Your task to perform on an android device: visit the assistant section in the google photos Image 0: 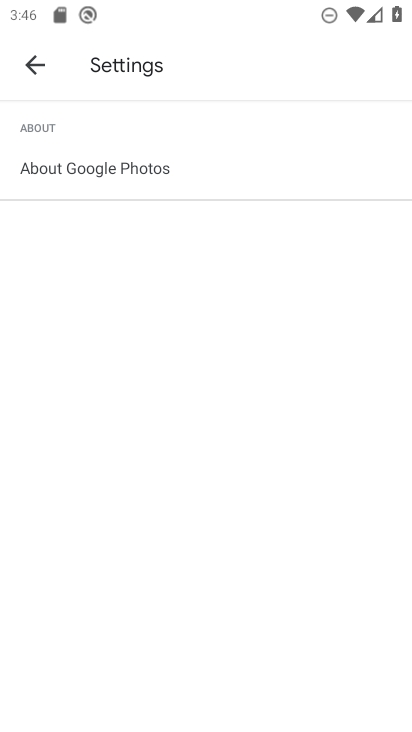
Step 0: press home button
Your task to perform on an android device: visit the assistant section in the google photos Image 1: 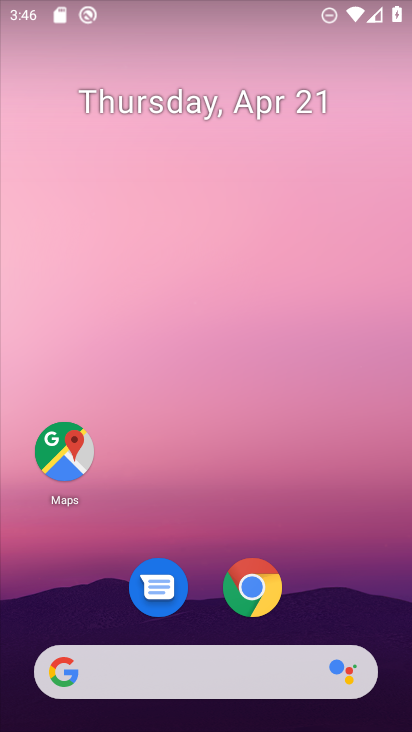
Step 1: drag from (391, 597) to (411, 98)
Your task to perform on an android device: visit the assistant section in the google photos Image 2: 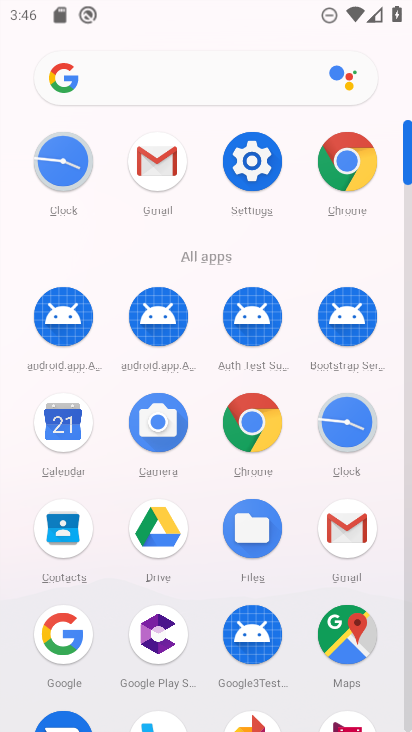
Step 2: click (406, 585)
Your task to perform on an android device: visit the assistant section in the google photos Image 3: 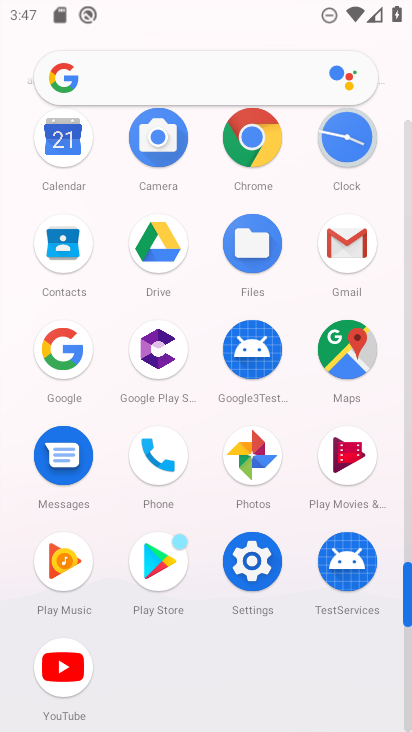
Step 3: click (255, 464)
Your task to perform on an android device: visit the assistant section in the google photos Image 4: 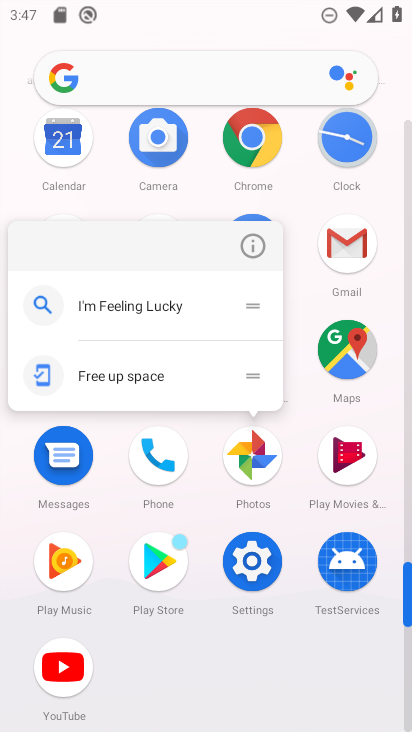
Step 4: click (256, 459)
Your task to perform on an android device: visit the assistant section in the google photos Image 5: 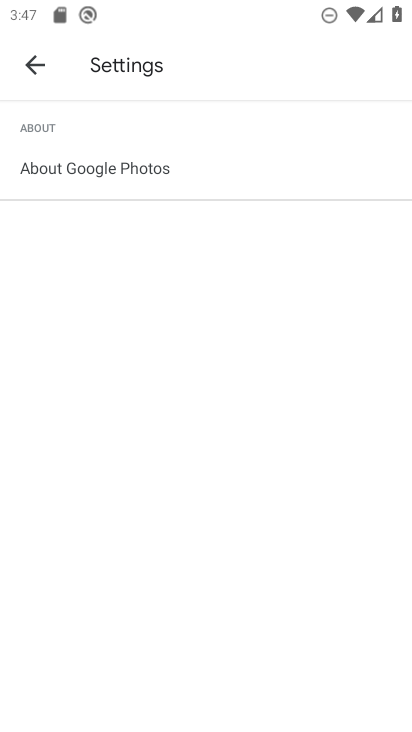
Step 5: click (43, 71)
Your task to perform on an android device: visit the assistant section in the google photos Image 6: 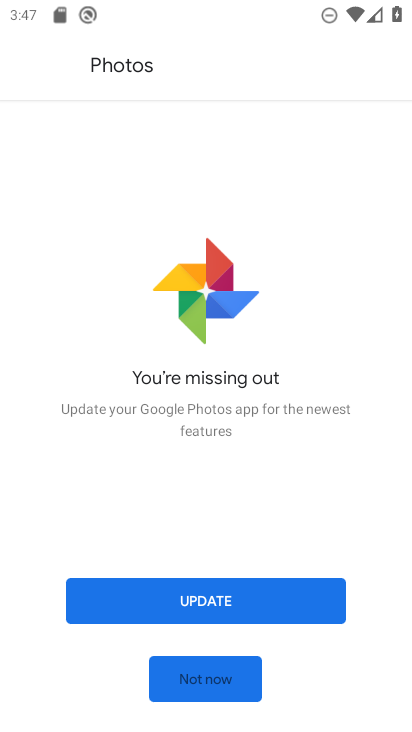
Step 6: click (171, 684)
Your task to perform on an android device: visit the assistant section in the google photos Image 7: 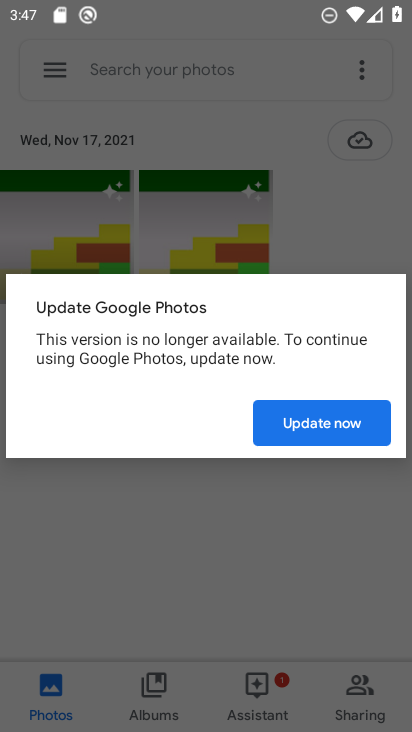
Step 7: click (317, 422)
Your task to perform on an android device: visit the assistant section in the google photos Image 8: 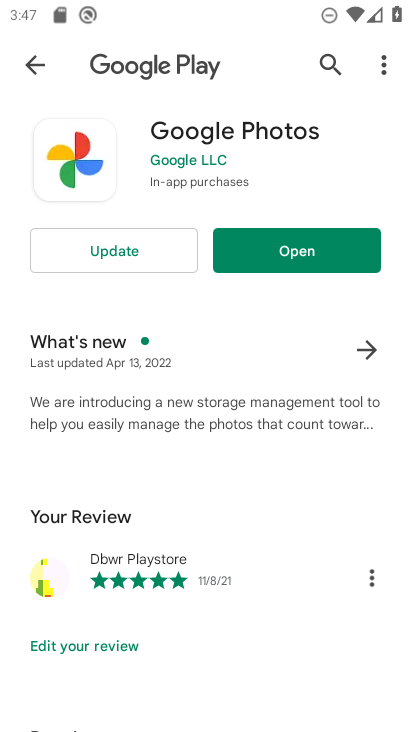
Step 8: click (242, 261)
Your task to perform on an android device: visit the assistant section in the google photos Image 9: 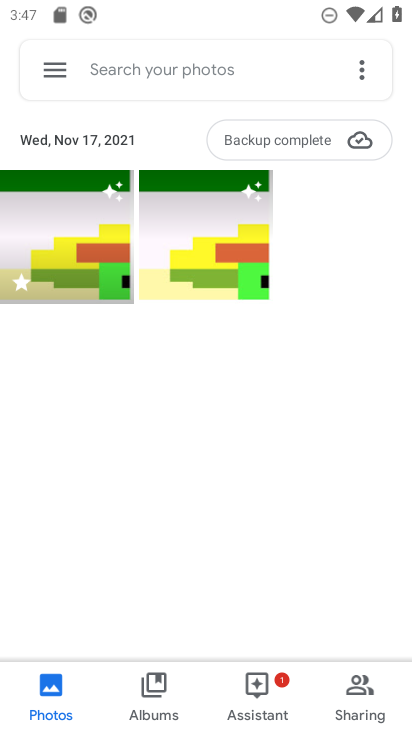
Step 9: click (258, 701)
Your task to perform on an android device: visit the assistant section in the google photos Image 10: 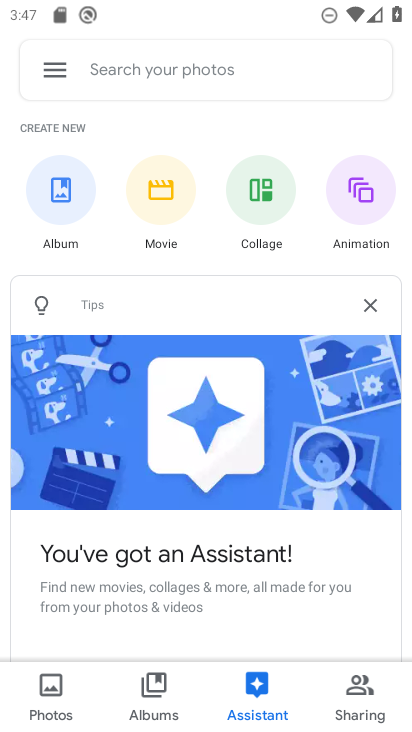
Step 10: task complete